Your task to perform on an android device: Go to Yahoo.com Image 0: 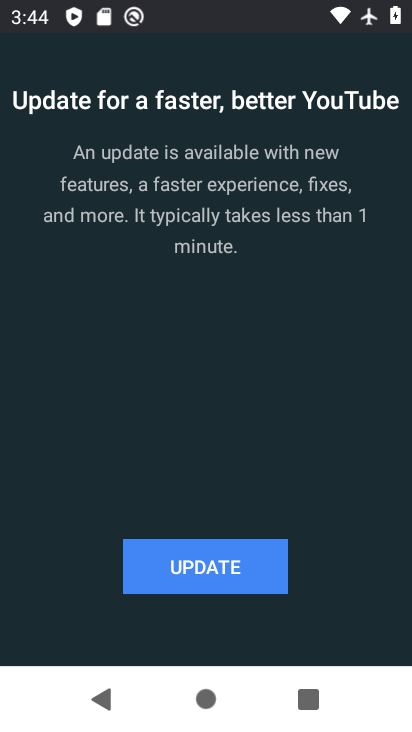
Step 0: press back button
Your task to perform on an android device: Go to Yahoo.com Image 1: 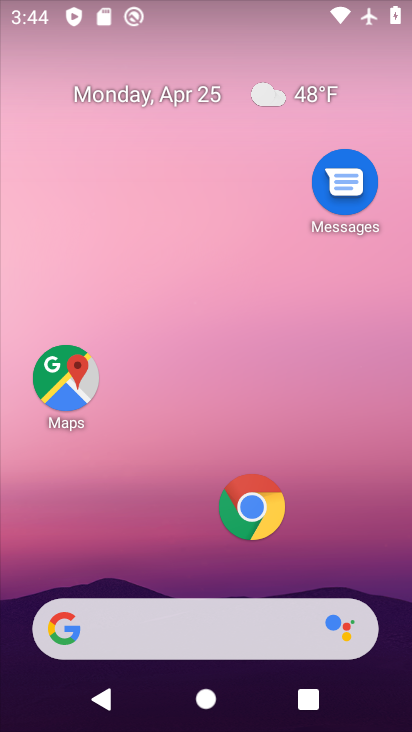
Step 1: drag from (151, 574) to (240, 54)
Your task to perform on an android device: Go to Yahoo.com Image 2: 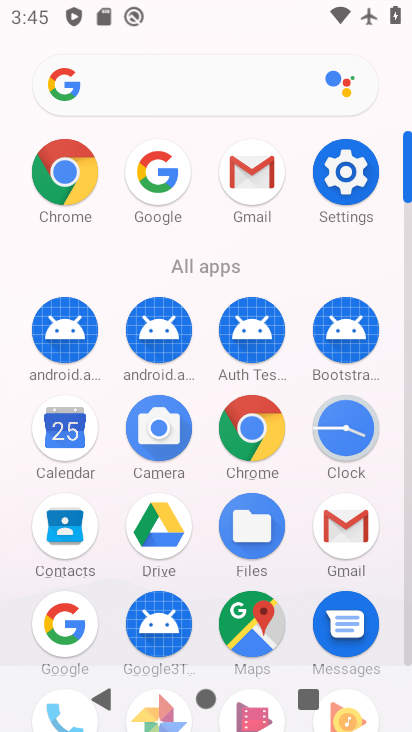
Step 2: click (252, 434)
Your task to perform on an android device: Go to Yahoo.com Image 3: 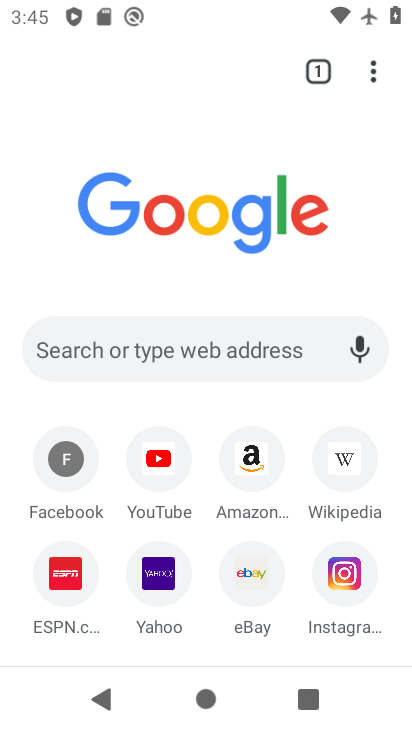
Step 3: click (155, 581)
Your task to perform on an android device: Go to Yahoo.com Image 4: 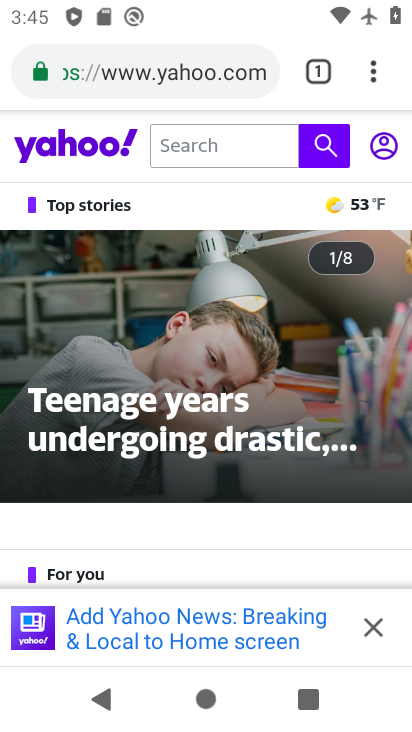
Step 4: task complete